Your task to perform on an android device: turn on airplane mode Image 0: 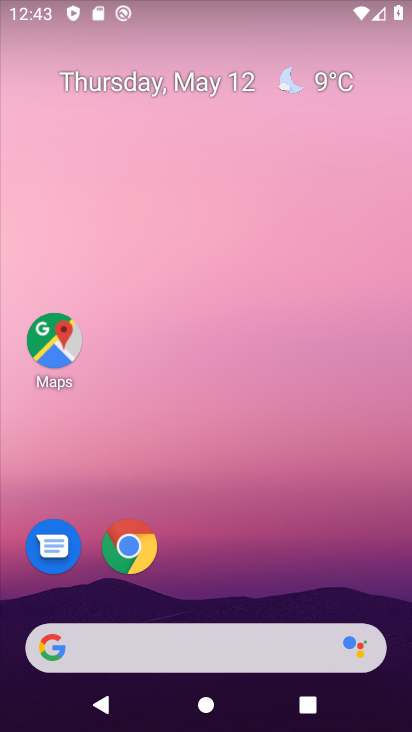
Step 0: drag from (253, 674) to (359, 297)
Your task to perform on an android device: turn on airplane mode Image 1: 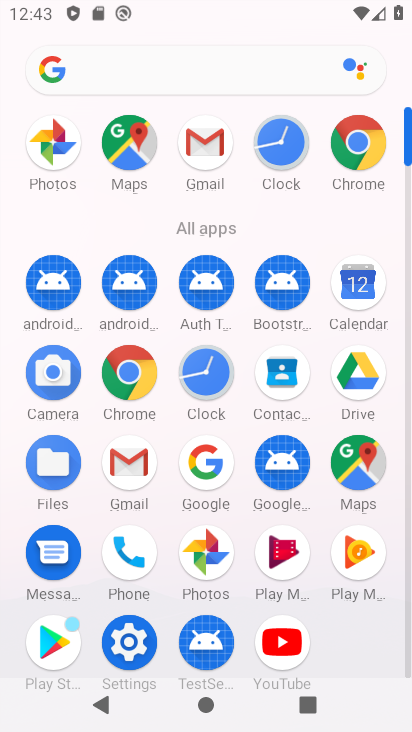
Step 1: click (124, 641)
Your task to perform on an android device: turn on airplane mode Image 2: 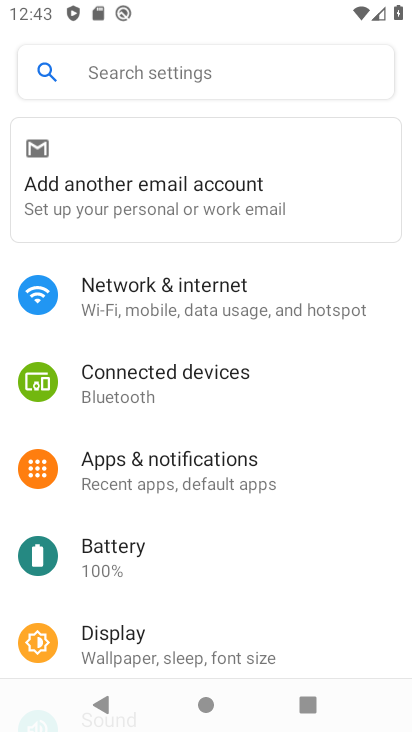
Step 2: click (178, 288)
Your task to perform on an android device: turn on airplane mode Image 3: 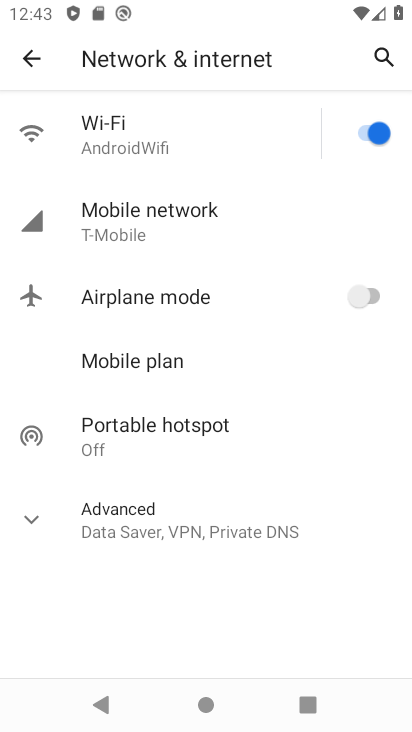
Step 3: click (217, 291)
Your task to perform on an android device: turn on airplane mode Image 4: 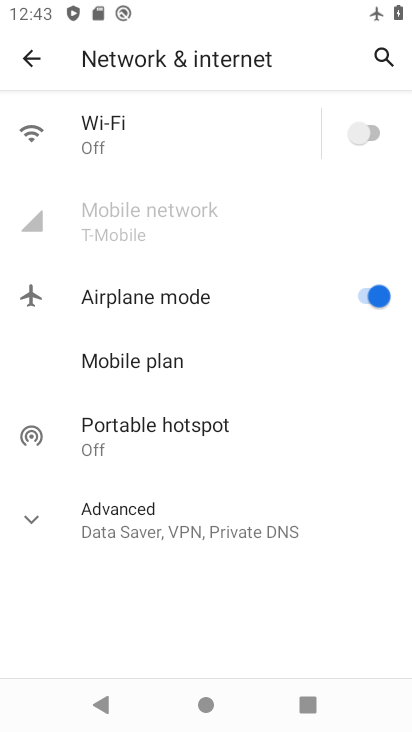
Step 4: task complete